Your task to perform on an android device: open app "Google Find My Device" Image 0: 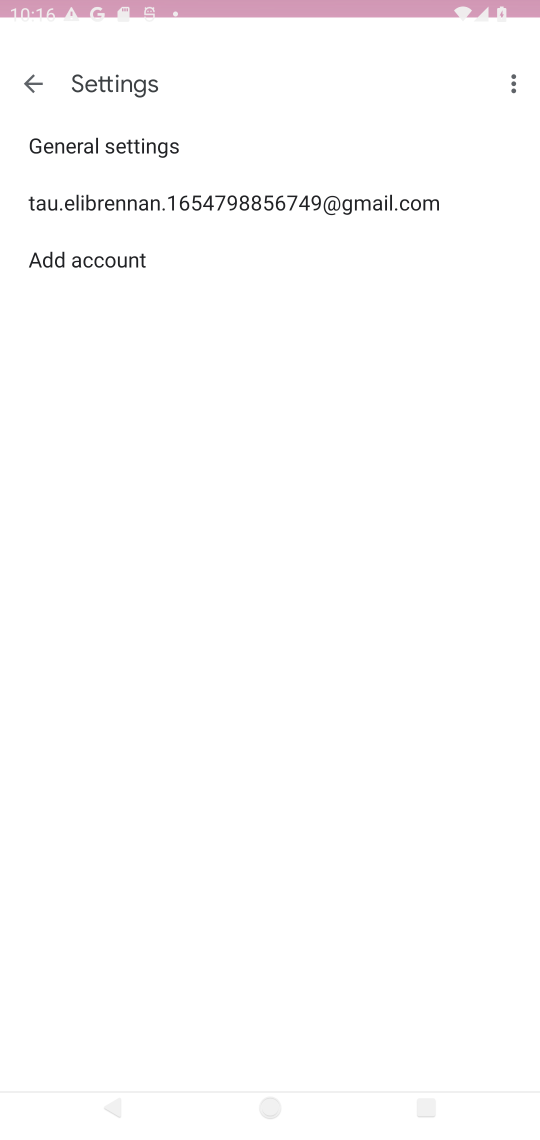
Step 0: press home button
Your task to perform on an android device: open app "Google Find My Device" Image 1: 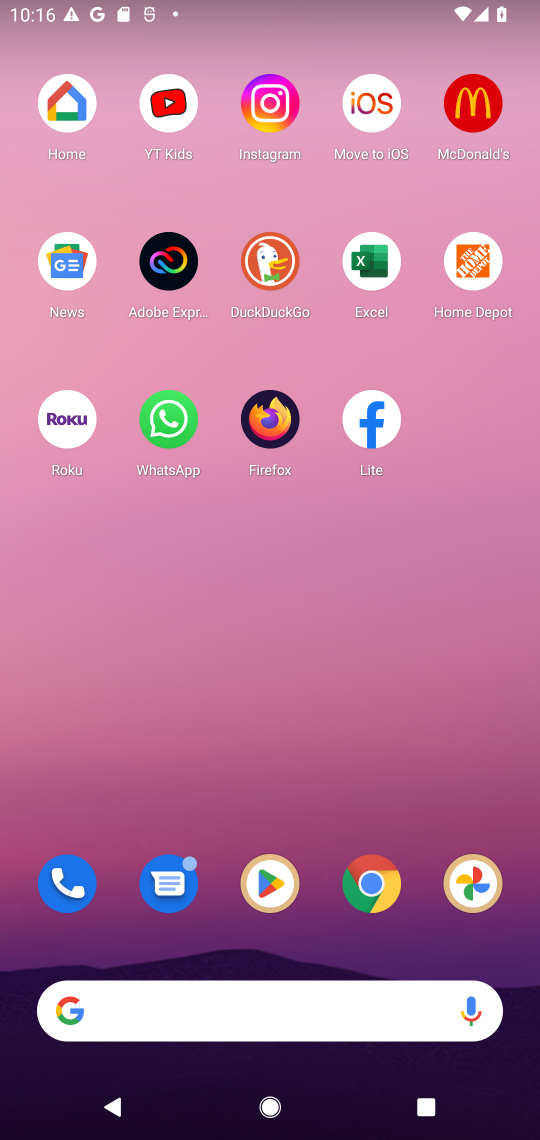
Step 1: drag from (415, 768) to (397, 33)
Your task to perform on an android device: open app "Google Find My Device" Image 2: 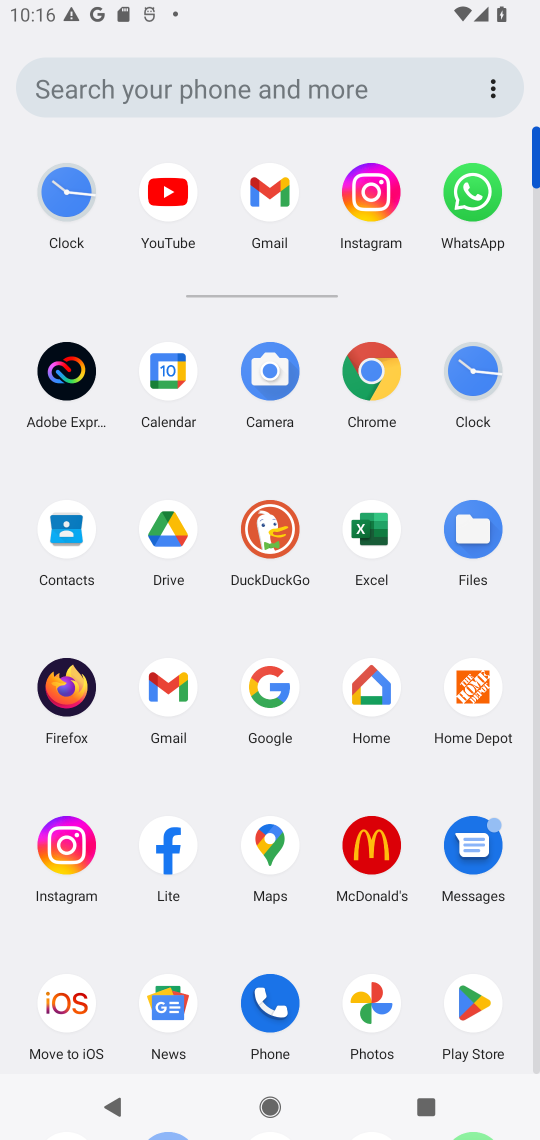
Step 2: click (462, 1005)
Your task to perform on an android device: open app "Google Find My Device" Image 3: 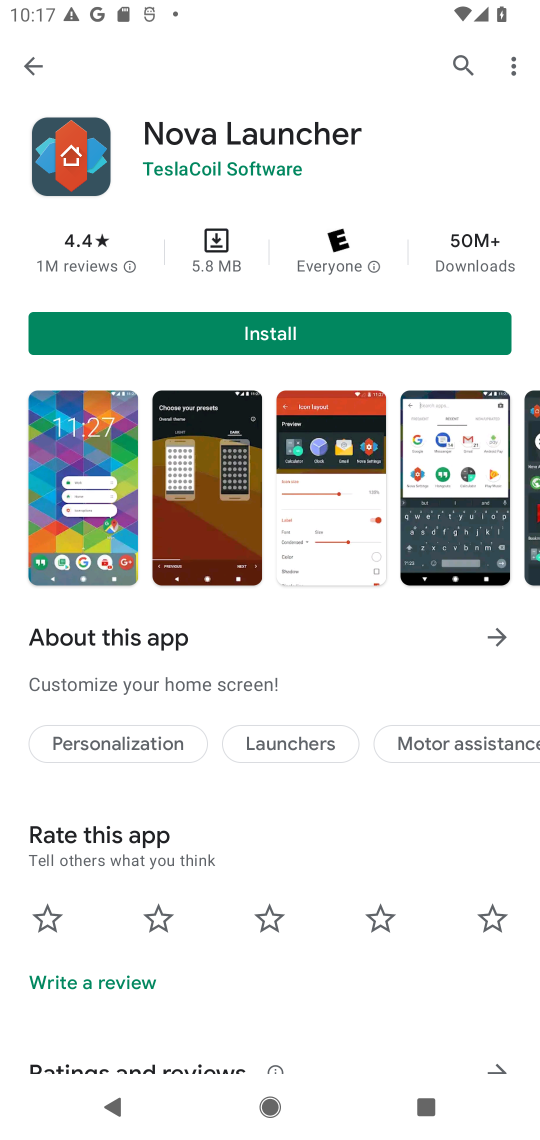
Step 3: click (461, 60)
Your task to perform on an android device: open app "Google Find My Device" Image 4: 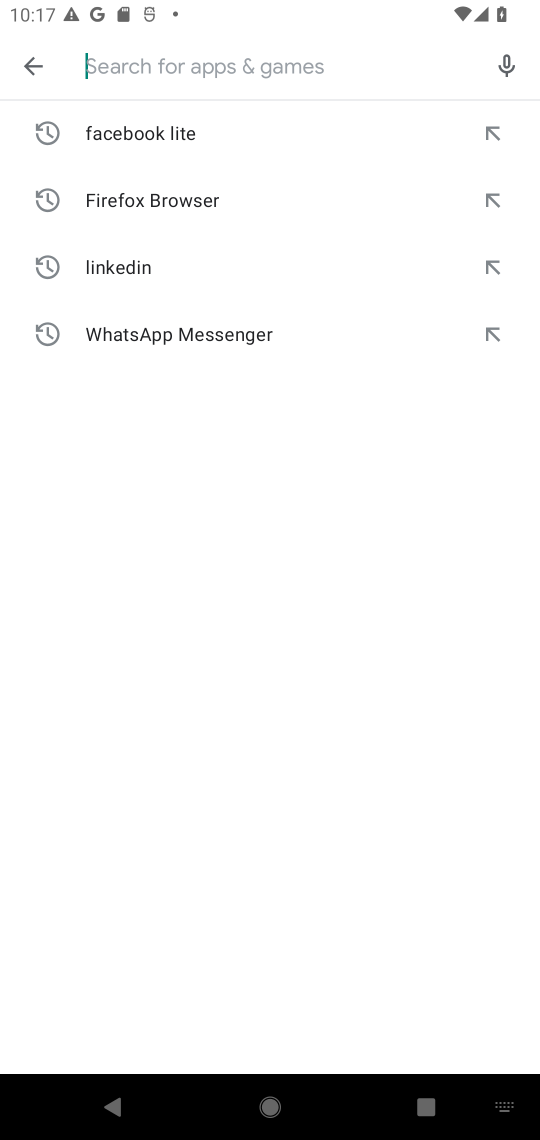
Step 4: type "Google Find My Device"
Your task to perform on an android device: open app "Google Find My Device" Image 5: 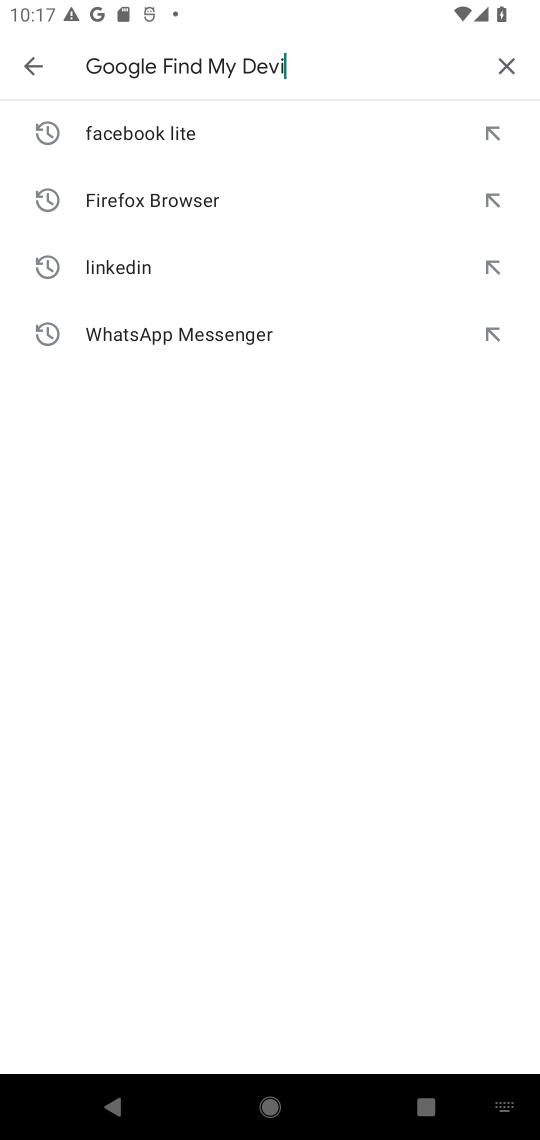
Step 5: press enter
Your task to perform on an android device: open app "Google Find My Device" Image 6: 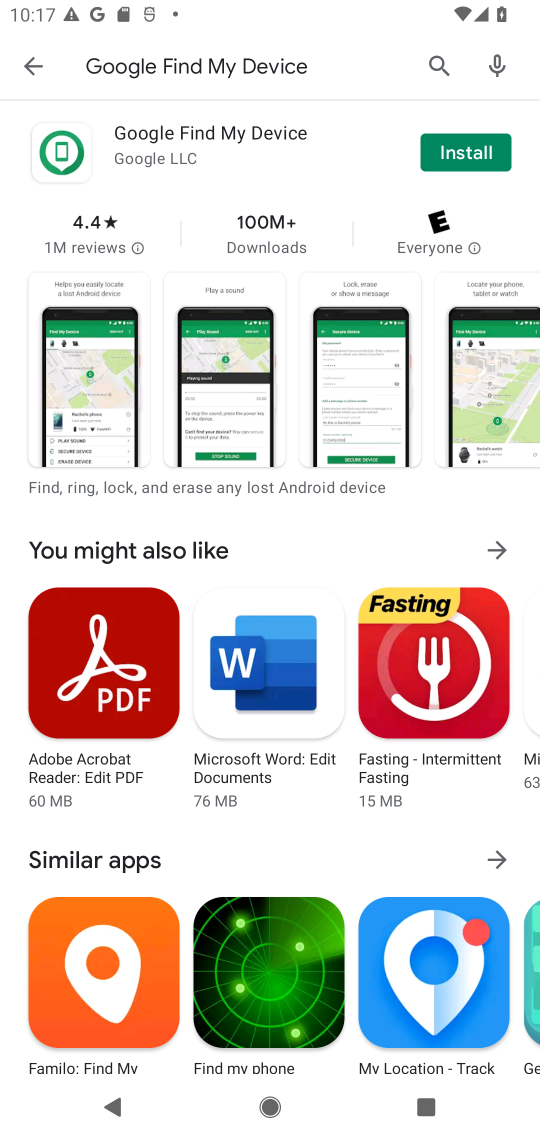
Step 6: task complete